Your task to perform on an android device: open chrome privacy settings Image 0: 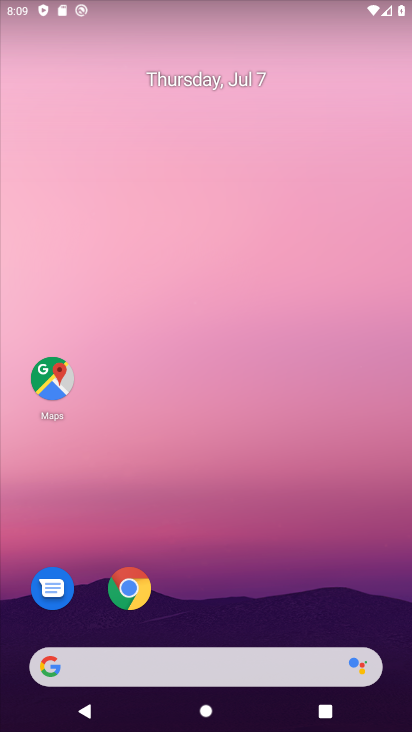
Step 0: click (128, 585)
Your task to perform on an android device: open chrome privacy settings Image 1: 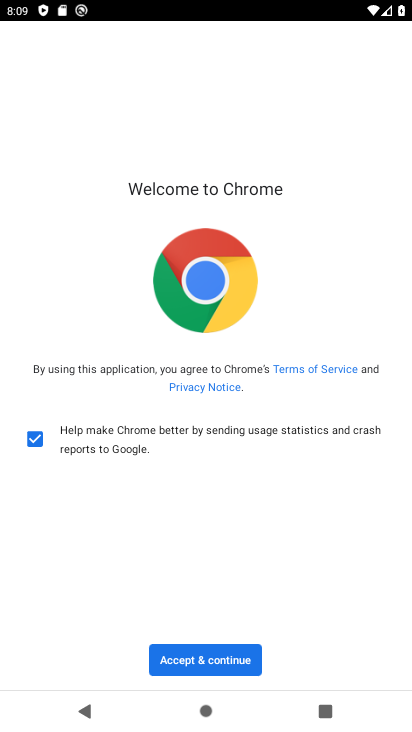
Step 1: click (178, 655)
Your task to perform on an android device: open chrome privacy settings Image 2: 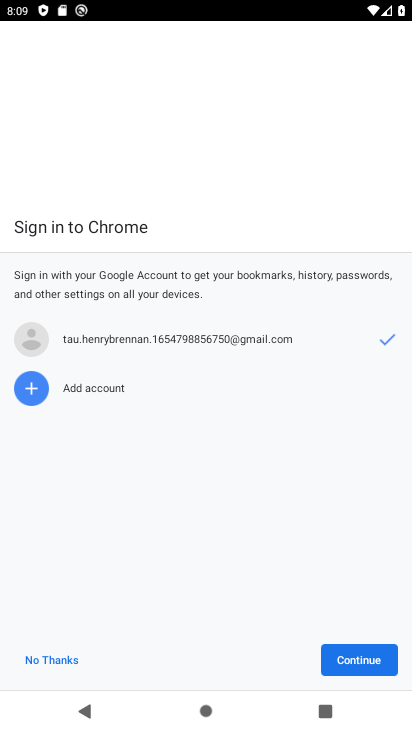
Step 2: click (358, 658)
Your task to perform on an android device: open chrome privacy settings Image 3: 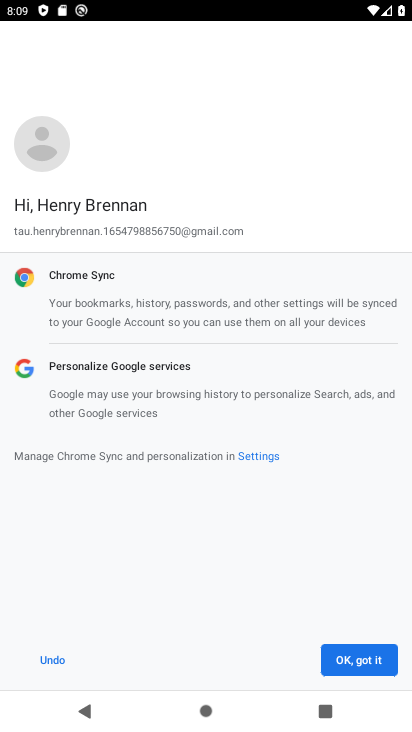
Step 3: click (358, 658)
Your task to perform on an android device: open chrome privacy settings Image 4: 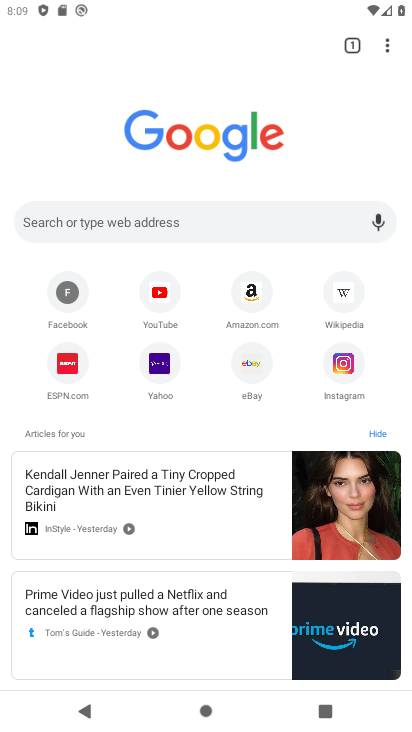
Step 4: click (389, 45)
Your task to perform on an android device: open chrome privacy settings Image 5: 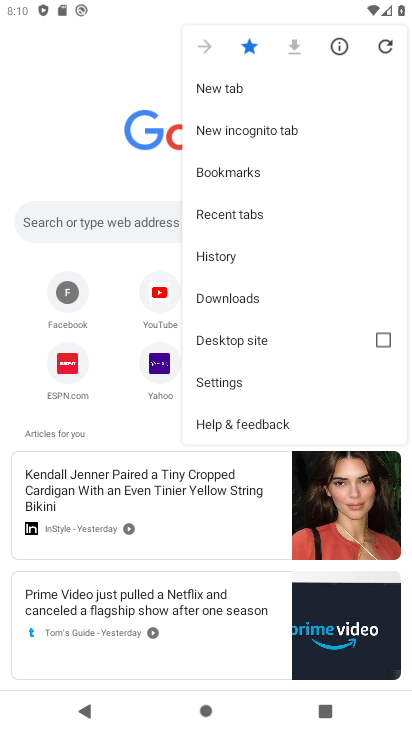
Step 5: click (230, 382)
Your task to perform on an android device: open chrome privacy settings Image 6: 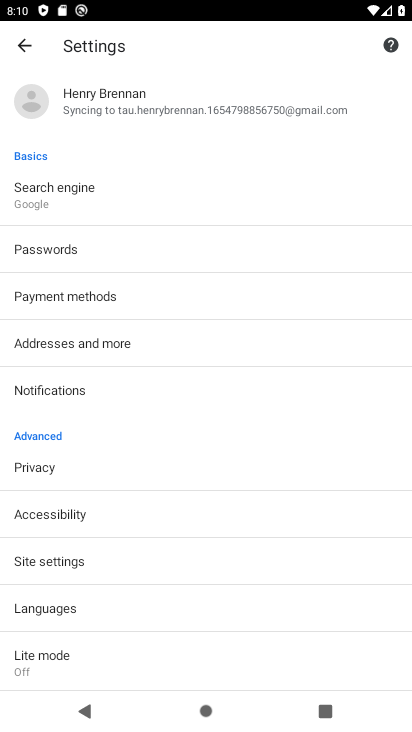
Step 6: click (32, 464)
Your task to perform on an android device: open chrome privacy settings Image 7: 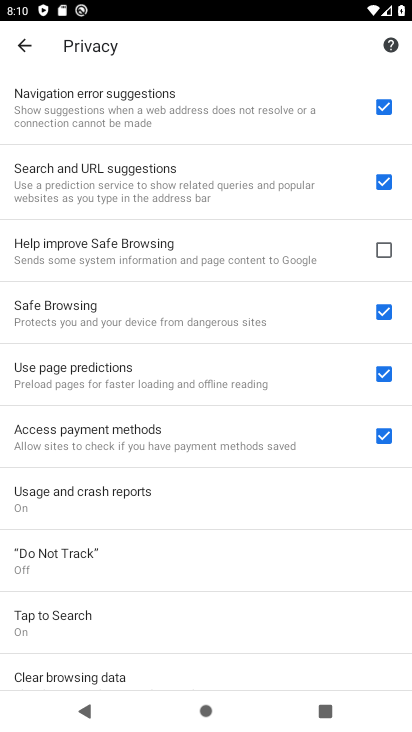
Step 7: task complete